Your task to perform on an android device: Open Android settings Image 0: 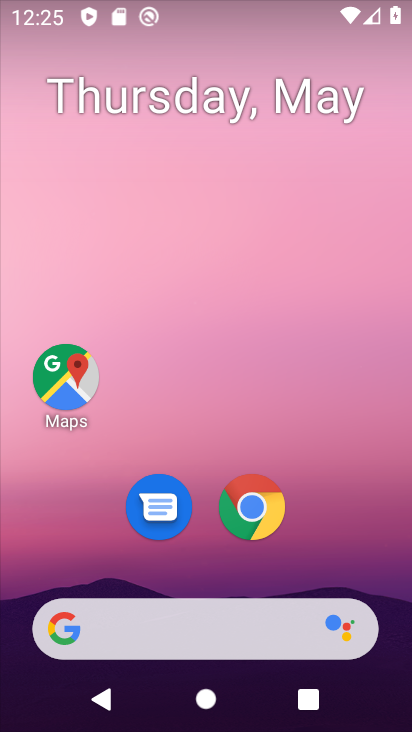
Step 0: drag from (283, 569) to (154, 28)
Your task to perform on an android device: Open Android settings Image 1: 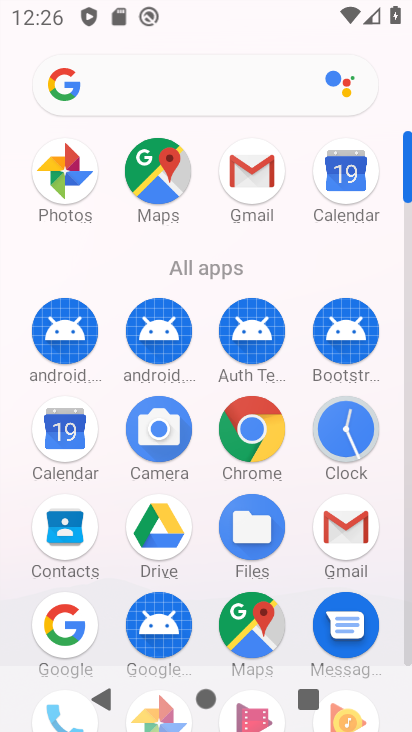
Step 1: drag from (194, 593) to (188, 298)
Your task to perform on an android device: Open Android settings Image 2: 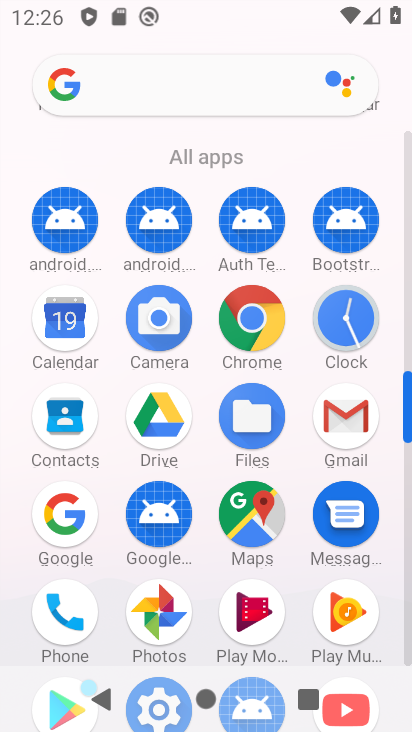
Step 2: drag from (212, 359) to (208, 253)
Your task to perform on an android device: Open Android settings Image 3: 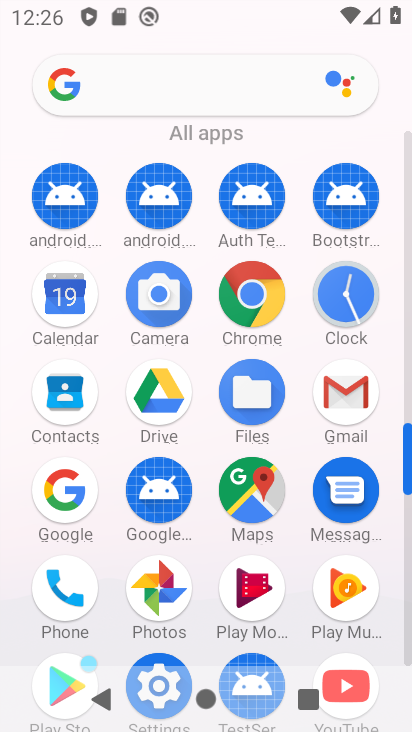
Step 3: drag from (183, 629) to (191, 212)
Your task to perform on an android device: Open Android settings Image 4: 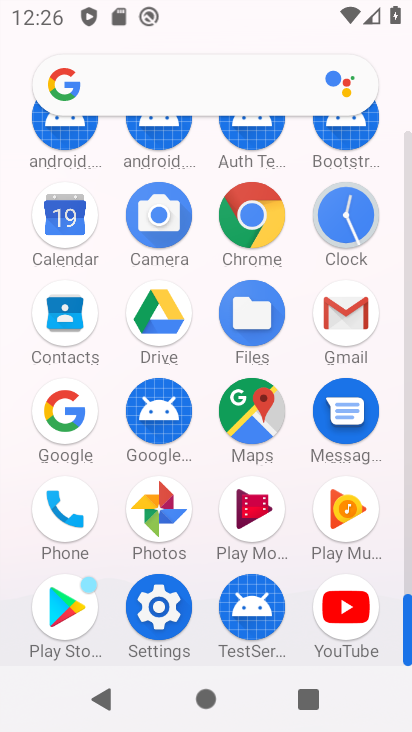
Step 4: click (160, 606)
Your task to perform on an android device: Open Android settings Image 5: 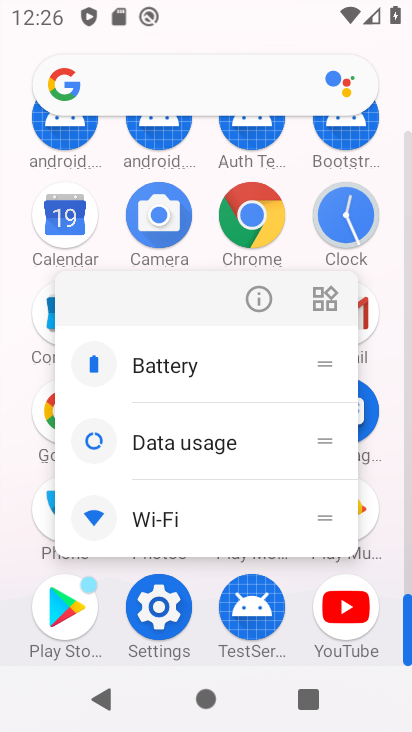
Step 5: click (160, 620)
Your task to perform on an android device: Open Android settings Image 6: 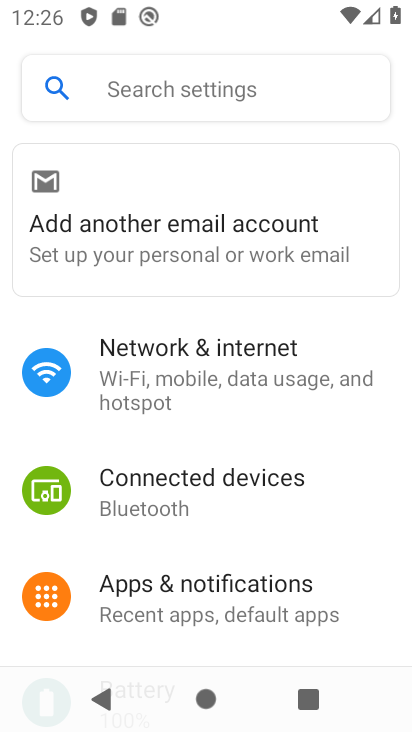
Step 6: drag from (195, 592) to (148, 302)
Your task to perform on an android device: Open Android settings Image 7: 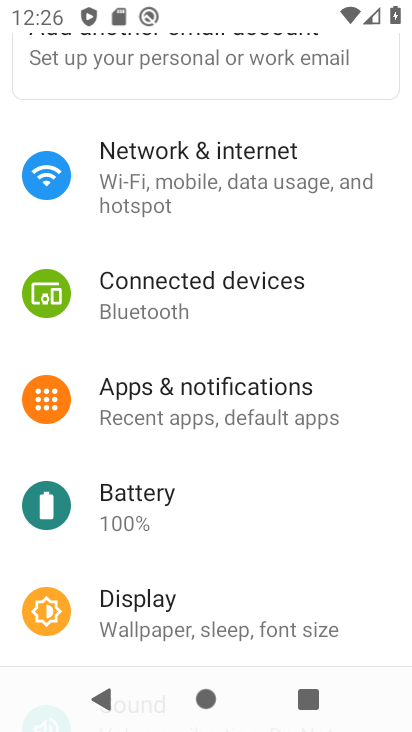
Step 7: drag from (212, 591) to (211, 197)
Your task to perform on an android device: Open Android settings Image 8: 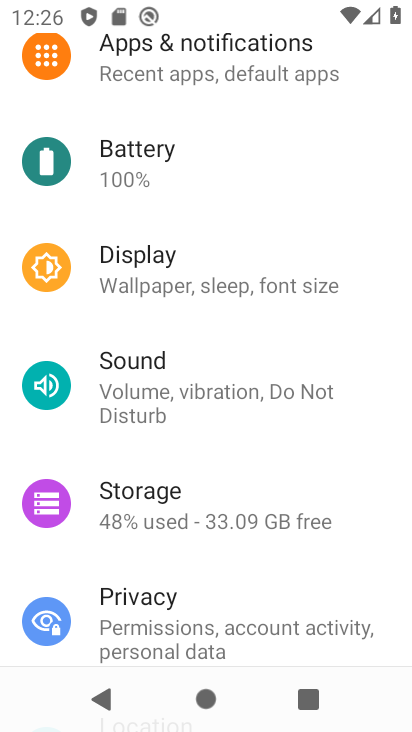
Step 8: drag from (179, 603) to (190, 163)
Your task to perform on an android device: Open Android settings Image 9: 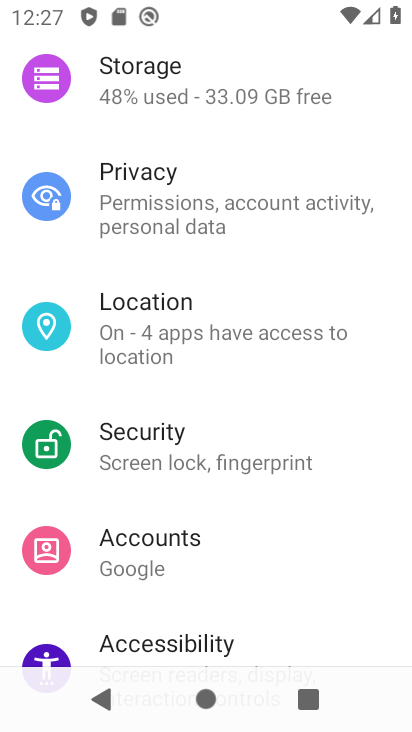
Step 9: drag from (170, 582) to (170, 173)
Your task to perform on an android device: Open Android settings Image 10: 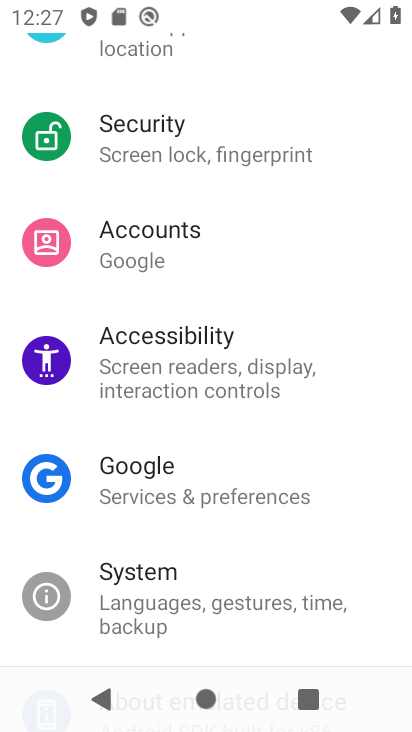
Step 10: drag from (179, 620) to (239, 188)
Your task to perform on an android device: Open Android settings Image 11: 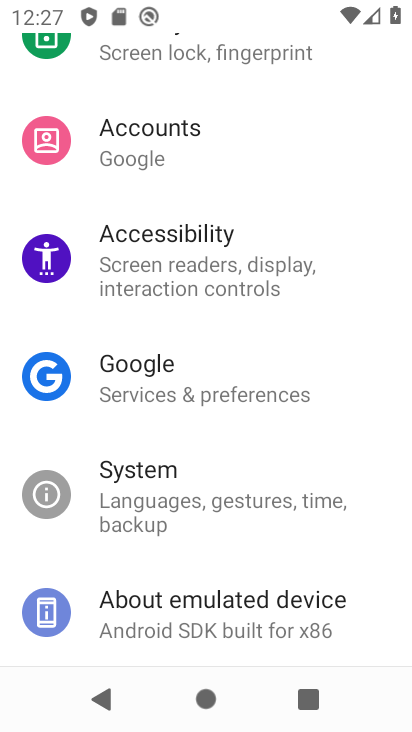
Step 11: click (198, 623)
Your task to perform on an android device: Open Android settings Image 12: 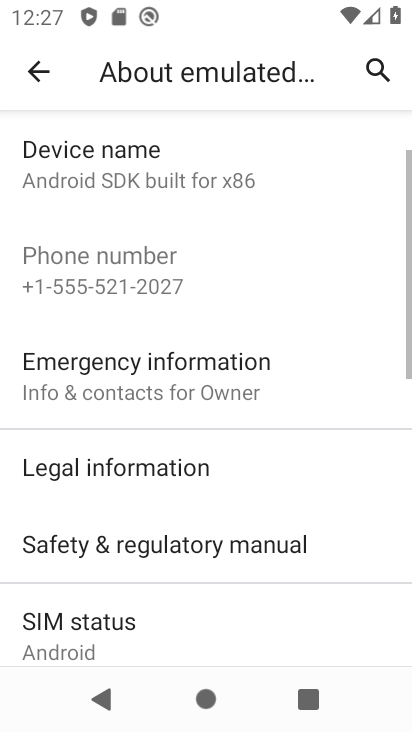
Step 12: task complete